Your task to perform on an android device: set an alarm Image 0: 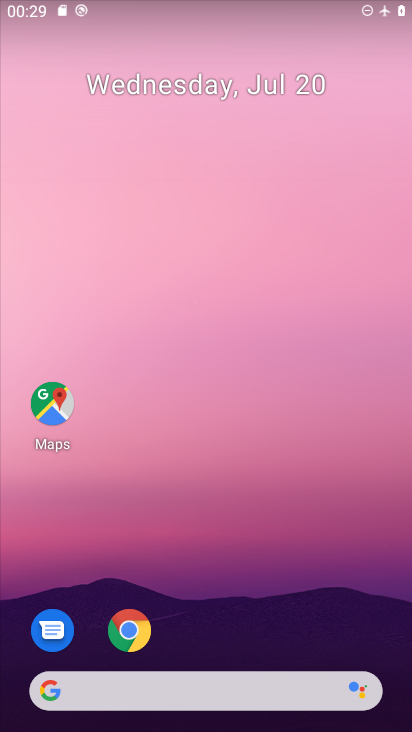
Step 0: drag from (174, 640) to (185, 338)
Your task to perform on an android device: set an alarm Image 1: 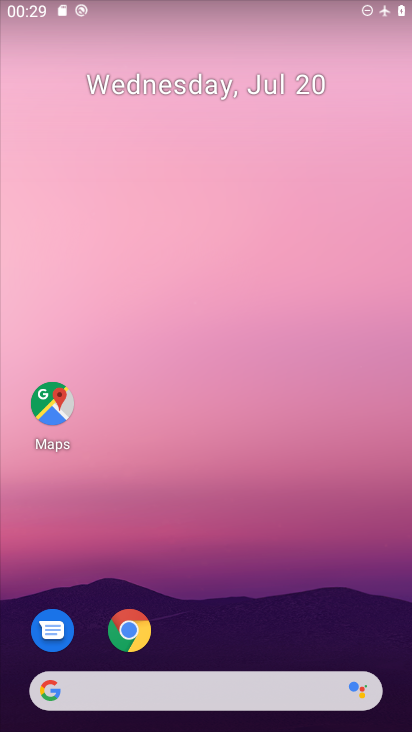
Step 1: drag from (205, 633) to (203, 62)
Your task to perform on an android device: set an alarm Image 2: 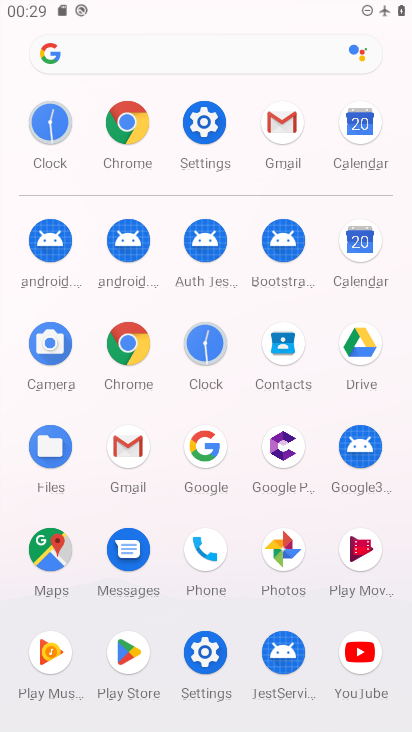
Step 2: click (210, 337)
Your task to perform on an android device: set an alarm Image 3: 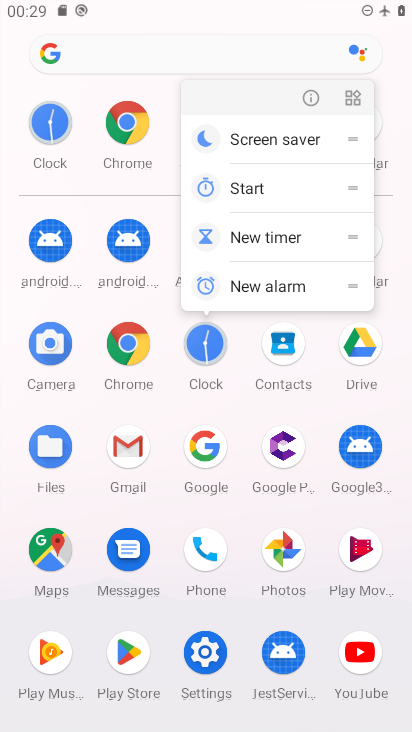
Step 3: click (213, 356)
Your task to perform on an android device: set an alarm Image 4: 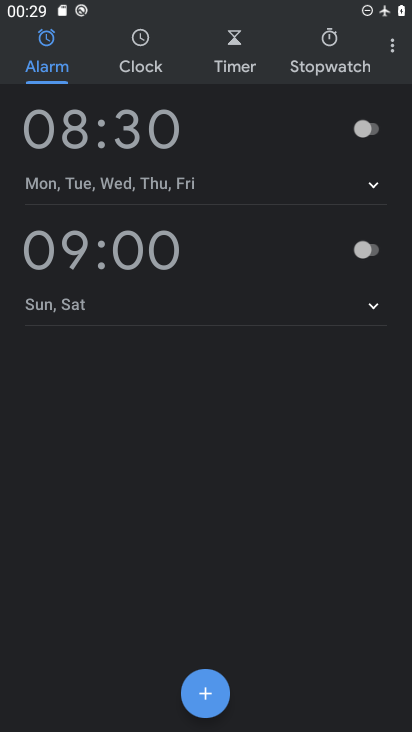
Step 4: click (370, 140)
Your task to perform on an android device: set an alarm Image 5: 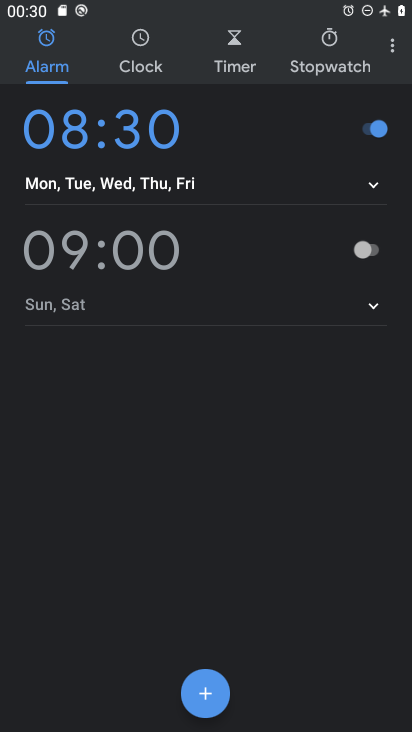
Step 5: task complete